Your task to perform on an android device: open the mobile data screen to see how much data has been used Image 0: 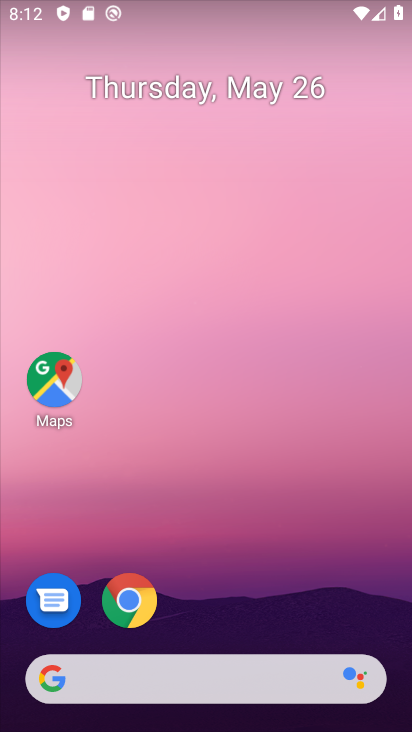
Step 0: drag from (244, 18) to (215, 447)
Your task to perform on an android device: open the mobile data screen to see how much data has been used Image 1: 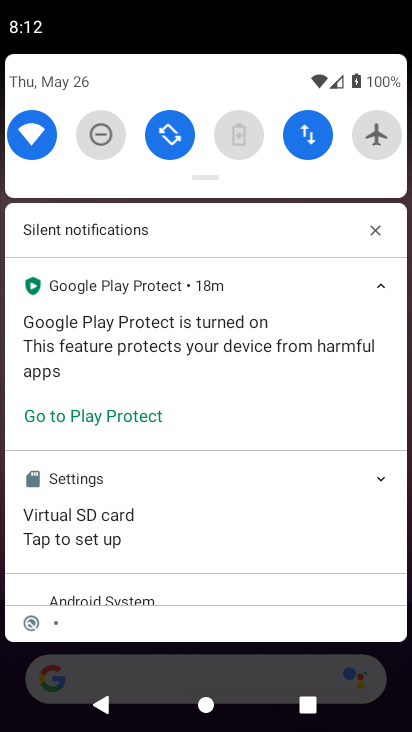
Step 1: click (311, 142)
Your task to perform on an android device: open the mobile data screen to see how much data has been used Image 2: 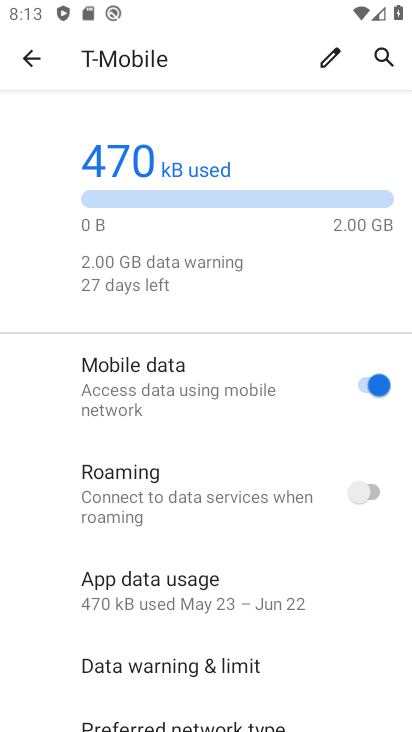
Step 2: task complete